Your task to perform on an android device: toggle sleep mode Image 0: 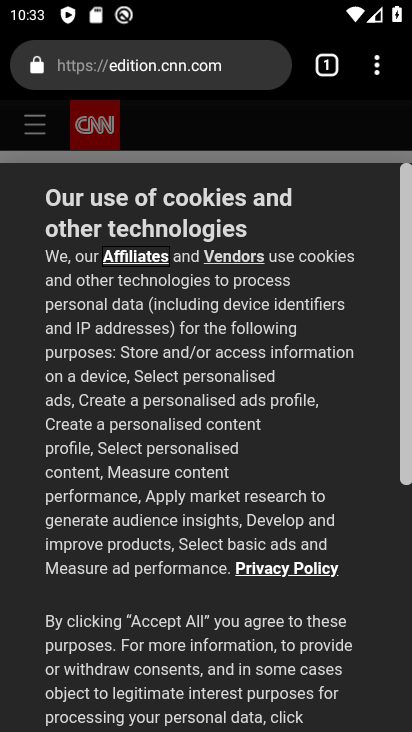
Step 0: drag from (282, 415) to (282, 233)
Your task to perform on an android device: toggle sleep mode Image 1: 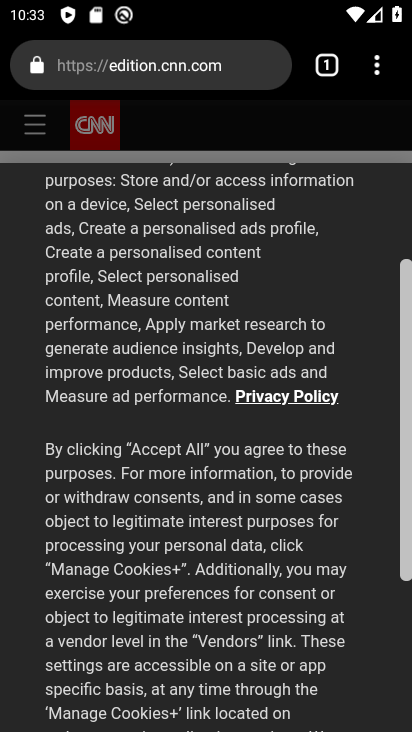
Step 1: press back button
Your task to perform on an android device: toggle sleep mode Image 2: 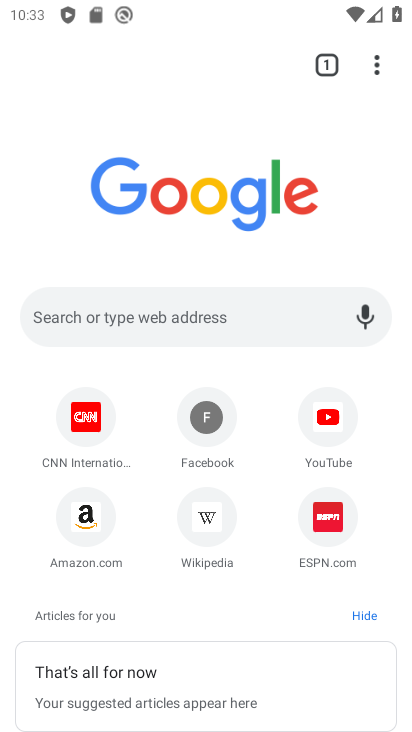
Step 2: press home button
Your task to perform on an android device: toggle sleep mode Image 3: 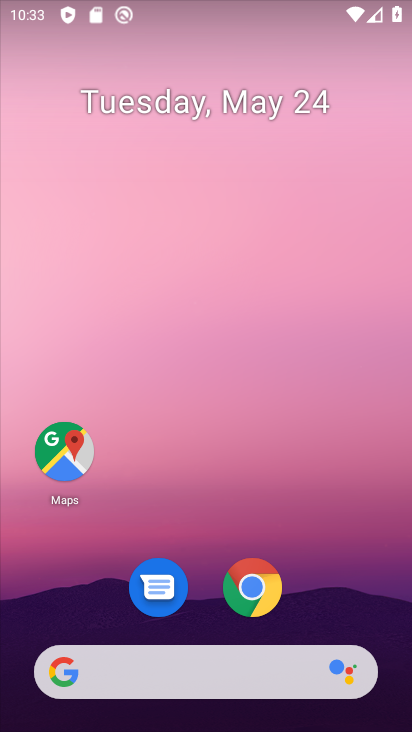
Step 3: drag from (325, 577) to (273, 26)
Your task to perform on an android device: toggle sleep mode Image 4: 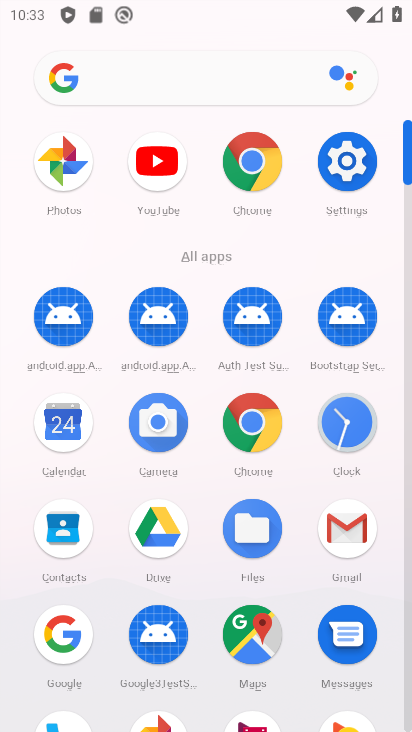
Step 4: drag from (7, 581) to (25, 263)
Your task to perform on an android device: toggle sleep mode Image 5: 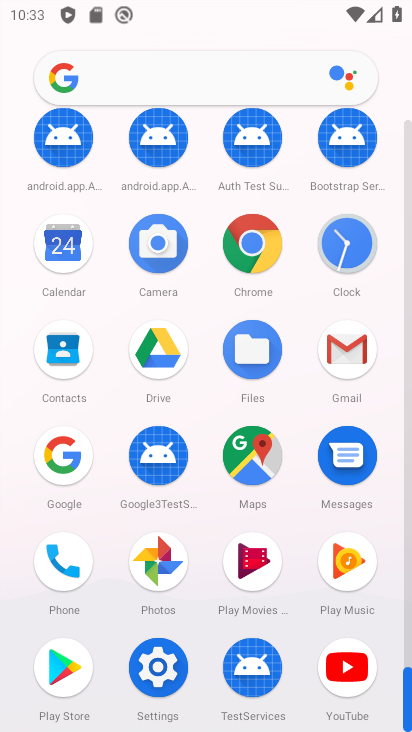
Step 5: click (159, 666)
Your task to perform on an android device: toggle sleep mode Image 6: 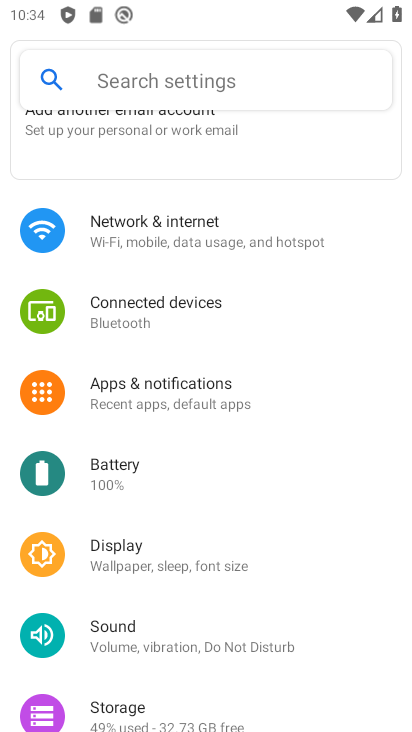
Step 6: drag from (270, 548) to (263, 215)
Your task to perform on an android device: toggle sleep mode Image 7: 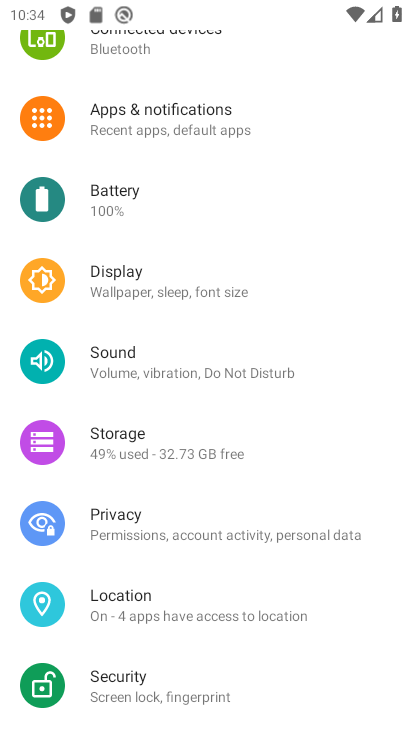
Step 7: drag from (269, 185) to (289, 560)
Your task to perform on an android device: toggle sleep mode Image 8: 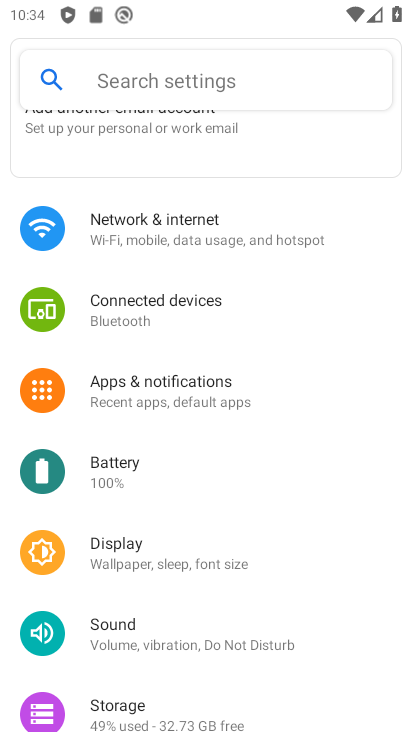
Step 8: click (220, 222)
Your task to perform on an android device: toggle sleep mode Image 9: 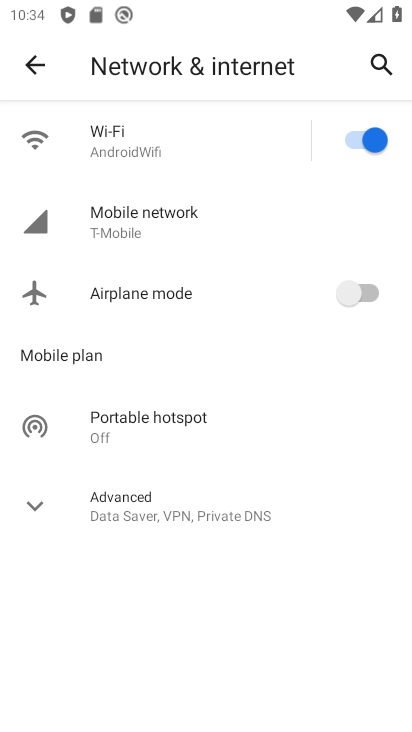
Step 9: click (31, 62)
Your task to perform on an android device: toggle sleep mode Image 10: 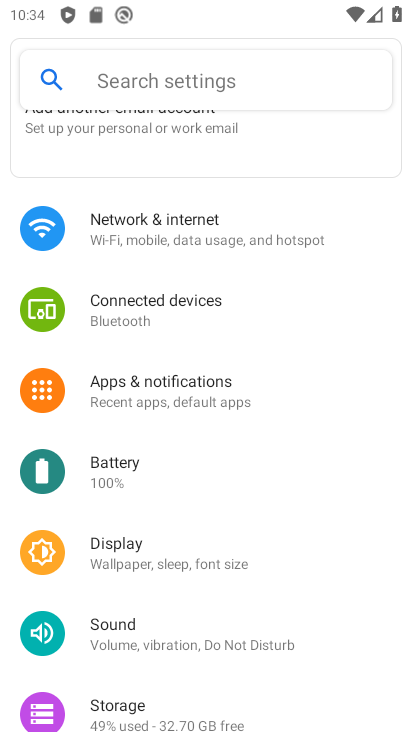
Step 10: click (168, 552)
Your task to perform on an android device: toggle sleep mode Image 11: 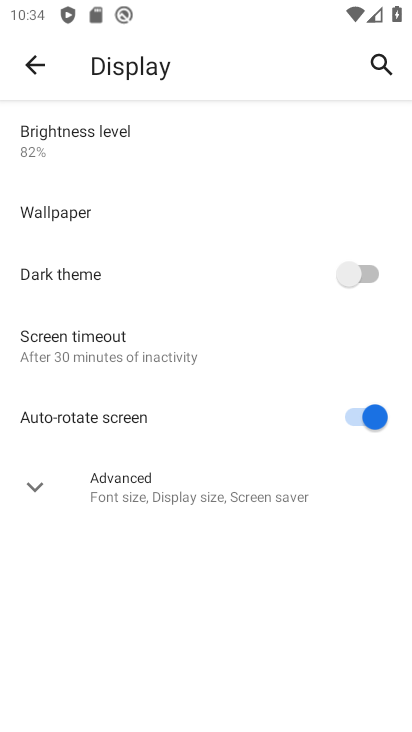
Step 11: click (36, 493)
Your task to perform on an android device: toggle sleep mode Image 12: 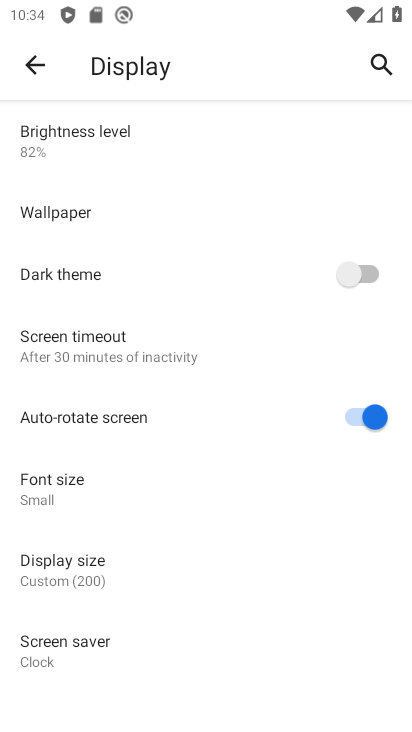
Step 12: task complete